Your task to perform on an android device: turn off smart reply in the gmail app Image 0: 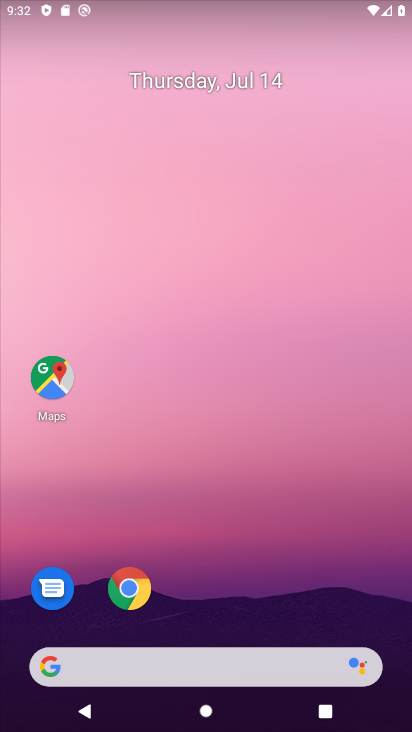
Step 0: drag from (184, 613) to (277, 76)
Your task to perform on an android device: turn off smart reply in the gmail app Image 1: 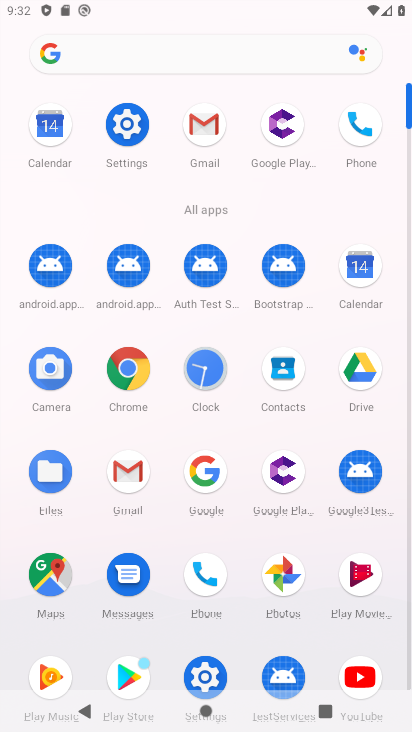
Step 1: click (192, 130)
Your task to perform on an android device: turn off smart reply in the gmail app Image 2: 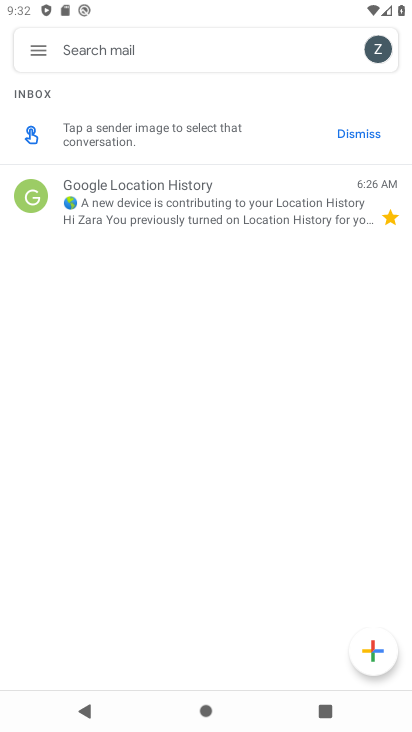
Step 2: click (39, 43)
Your task to perform on an android device: turn off smart reply in the gmail app Image 3: 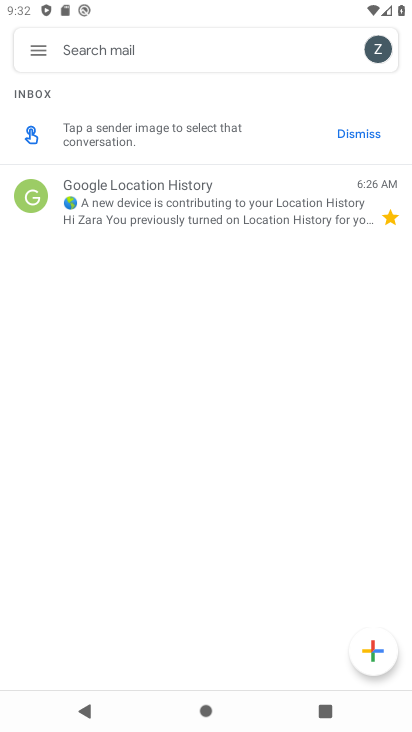
Step 3: click (38, 36)
Your task to perform on an android device: turn off smart reply in the gmail app Image 4: 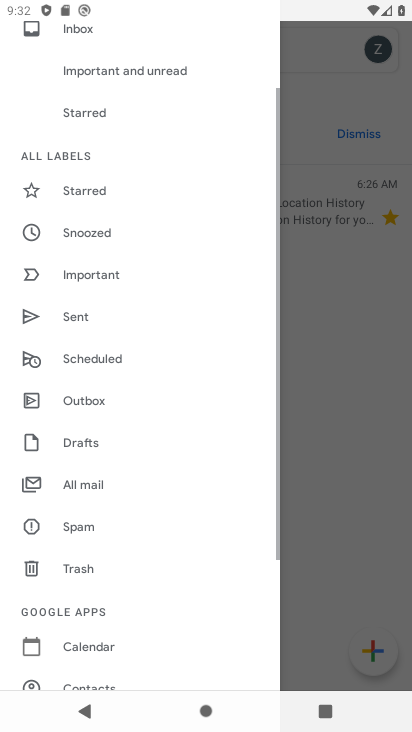
Step 4: drag from (78, 662) to (192, 149)
Your task to perform on an android device: turn off smart reply in the gmail app Image 5: 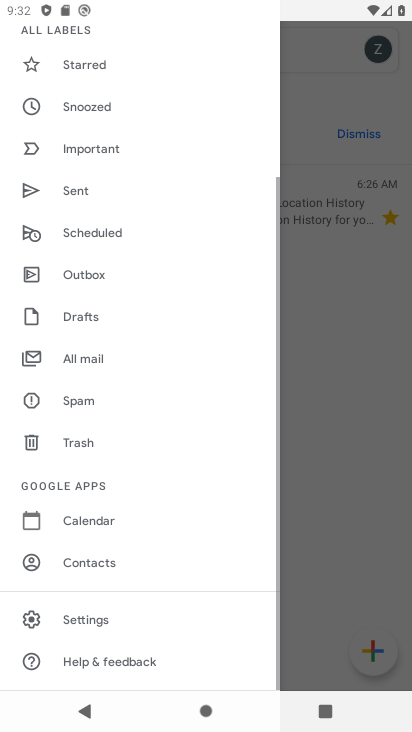
Step 5: click (91, 617)
Your task to perform on an android device: turn off smart reply in the gmail app Image 6: 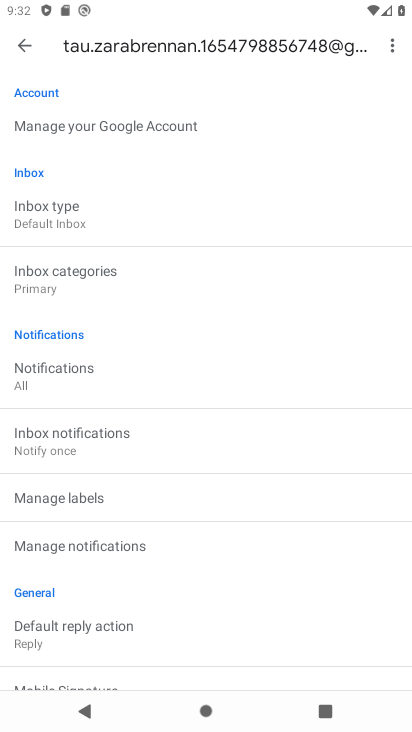
Step 6: drag from (91, 617) to (212, 40)
Your task to perform on an android device: turn off smart reply in the gmail app Image 7: 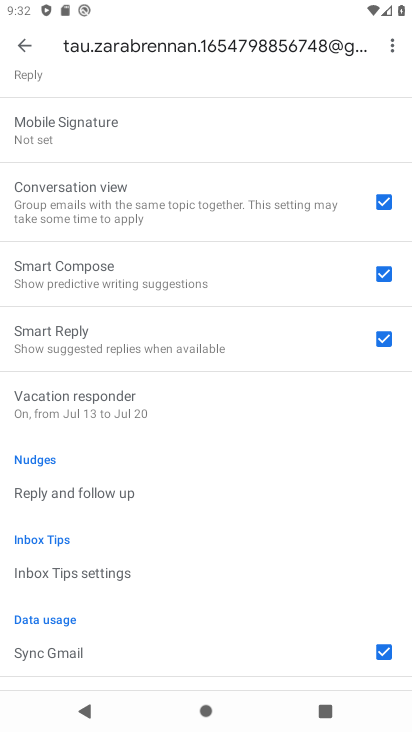
Step 7: click (381, 339)
Your task to perform on an android device: turn off smart reply in the gmail app Image 8: 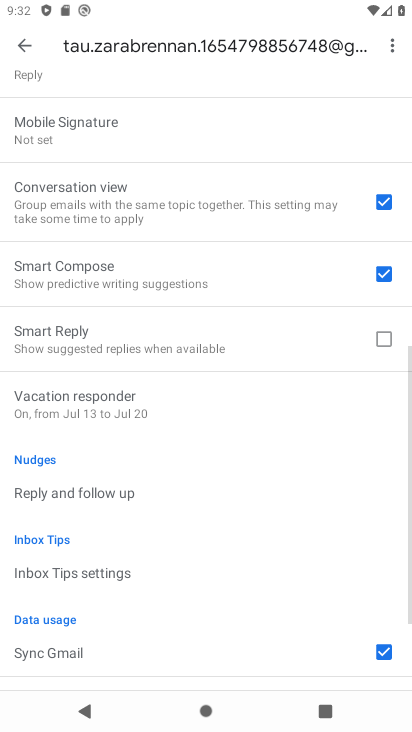
Step 8: task complete